Your task to perform on an android device: turn on javascript in the chrome app Image 0: 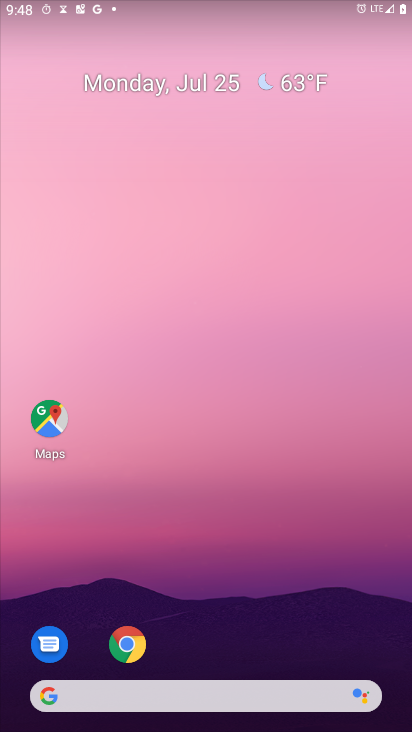
Step 0: drag from (194, 589) to (211, 247)
Your task to perform on an android device: turn on javascript in the chrome app Image 1: 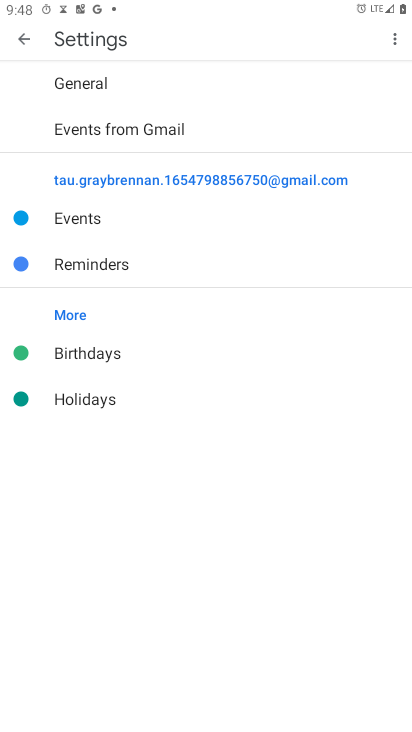
Step 1: press back button
Your task to perform on an android device: turn on javascript in the chrome app Image 2: 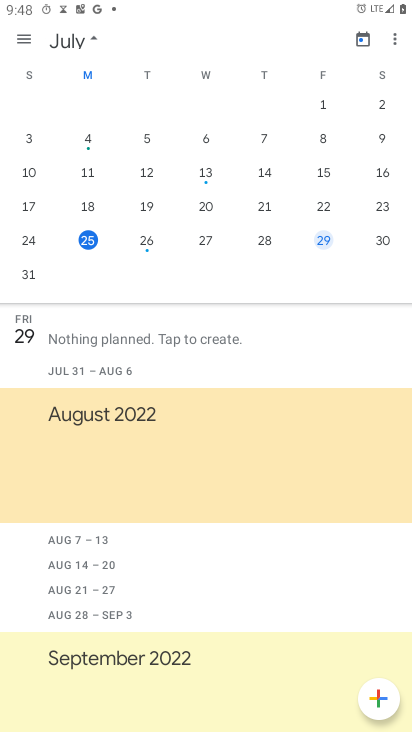
Step 2: press home button
Your task to perform on an android device: turn on javascript in the chrome app Image 3: 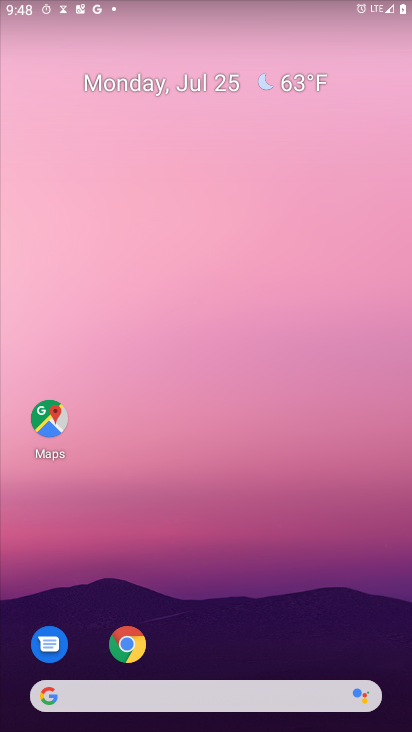
Step 3: drag from (251, 666) to (256, 313)
Your task to perform on an android device: turn on javascript in the chrome app Image 4: 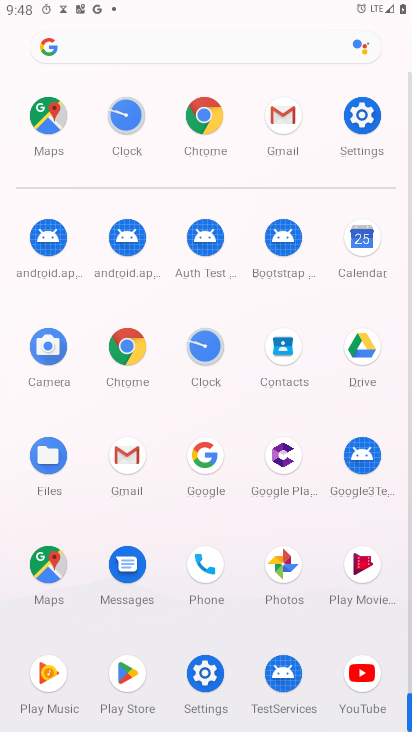
Step 4: click (191, 111)
Your task to perform on an android device: turn on javascript in the chrome app Image 5: 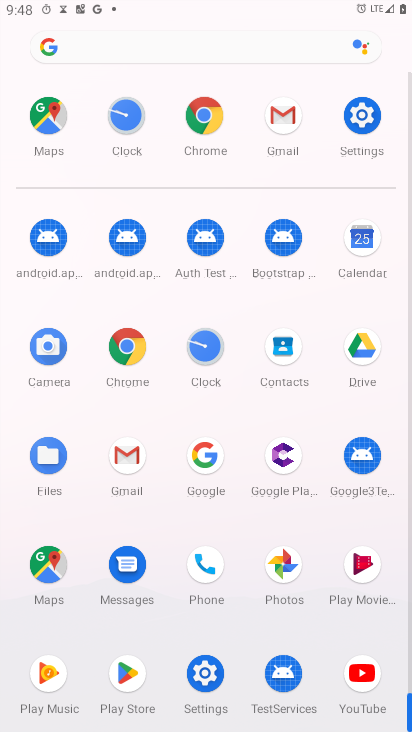
Step 5: click (191, 110)
Your task to perform on an android device: turn on javascript in the chrome app Image 6: 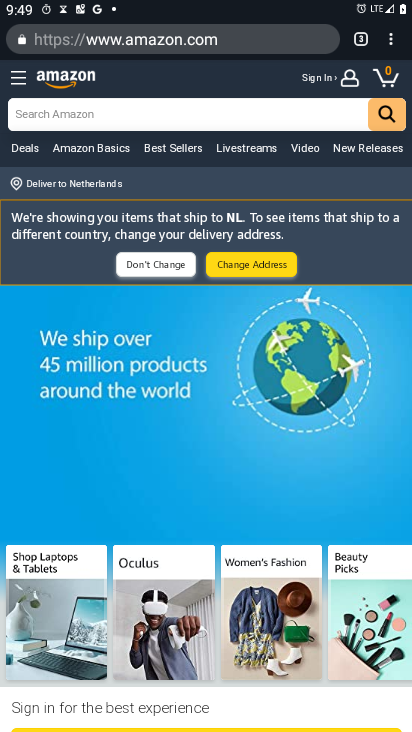
Step 6: drag from (382, 37) to (261, 468)
Your task to perform on an android device: turn on javascript in the chrome app Image 7: 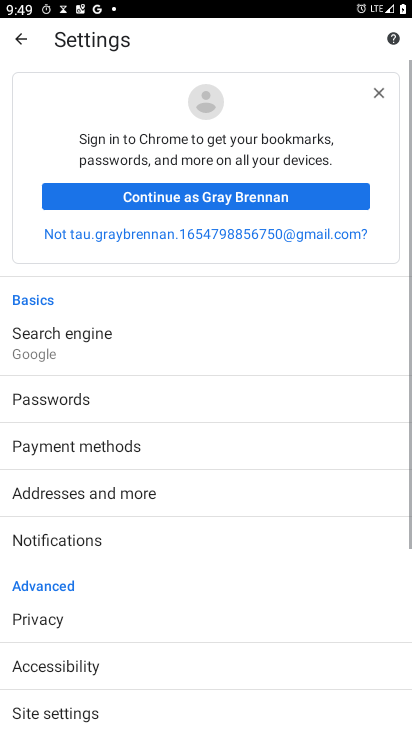
Step 7: drag from (66, 564) to (63, 262)
Your task to perform on an android device: turn on javascript in the chrome app Image 8: 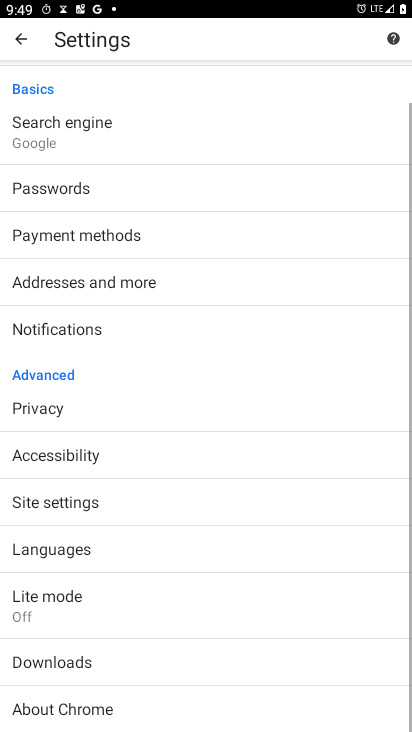
Step 8: drag from (83, 567) to (83, 280)
Your task to perform on an android device: turn on javascript in the chrome app Image 9: 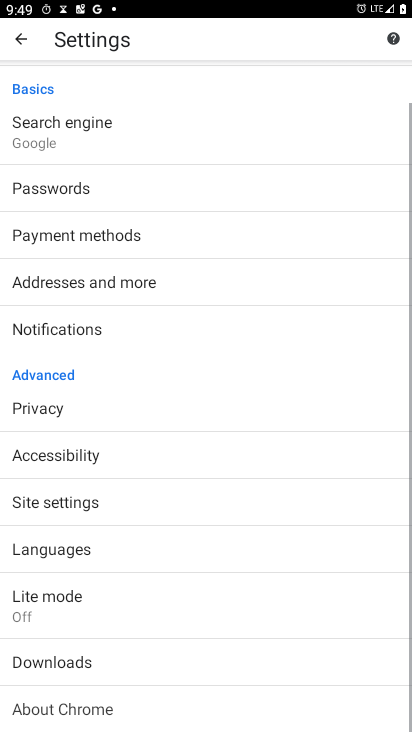
Step 9: drag from (191, 630) to (139, 175)
Your task to perform on an android device: turn on javascript in the chrome app Image 10: 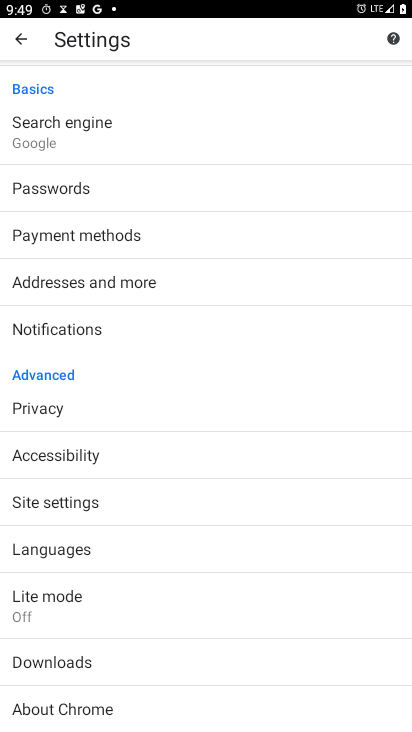
Step 10: click (36, 505)
Your task to perform on an android device: turn on javascript in the chrome app Image 11: 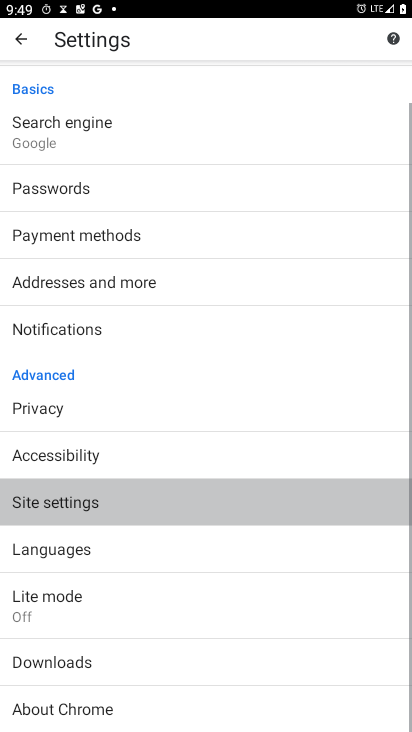
Step 11: click (41, 502)
Your task to perform on an android device: turn on javascript in the chrome app Image 12: 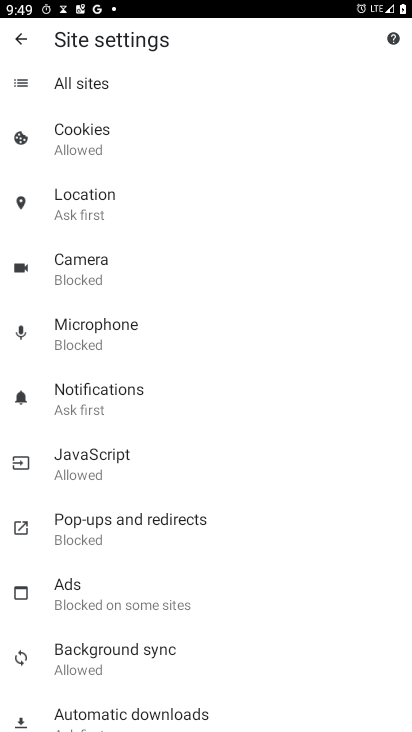
Step 12: click (84, 461)
Your task to perform on an android device: turn on javascript in the chrome app Image 13: 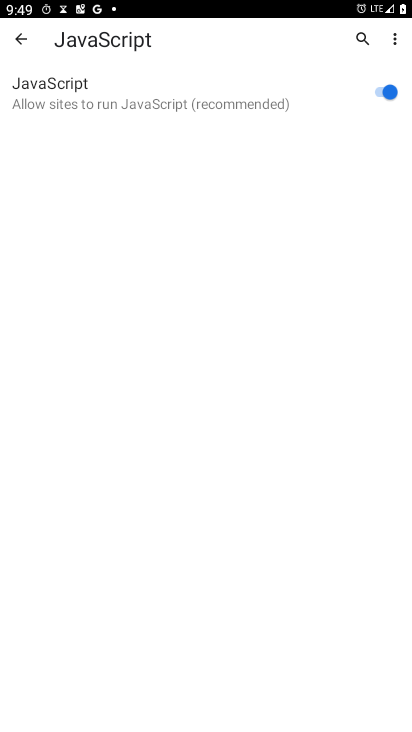
Step 13: task complete